Your task to perform on an android device: Clear all items from cart on ebay. Image 0: 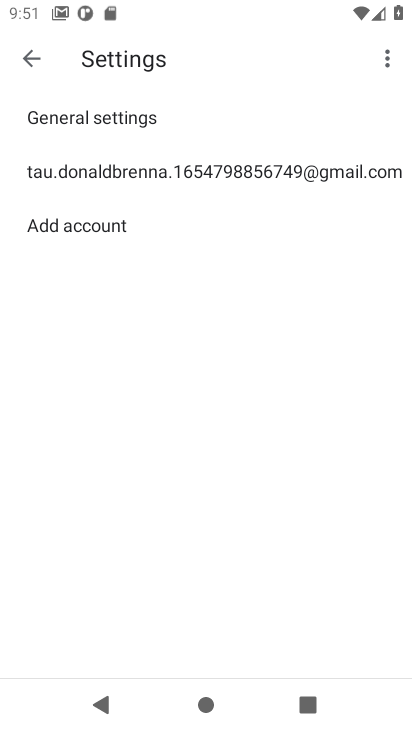
Step 0: press home button
Your task to perform on an android device: Clear all items from cart on ebay. Image 1: 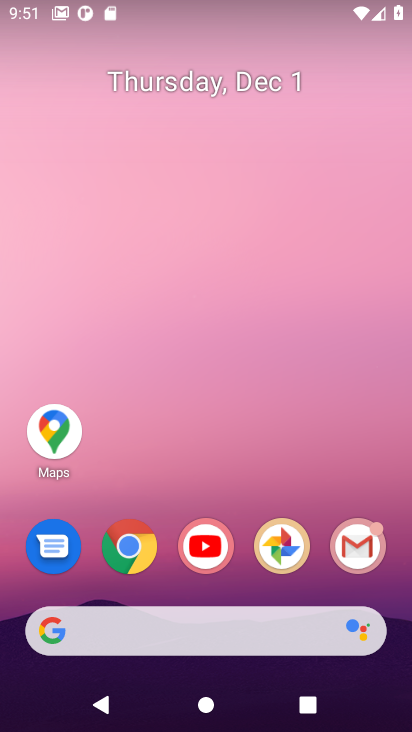
Step 1: click (139, 550)
Your task to perform on an android device: Clear all items from cart on ebay. Image 2: 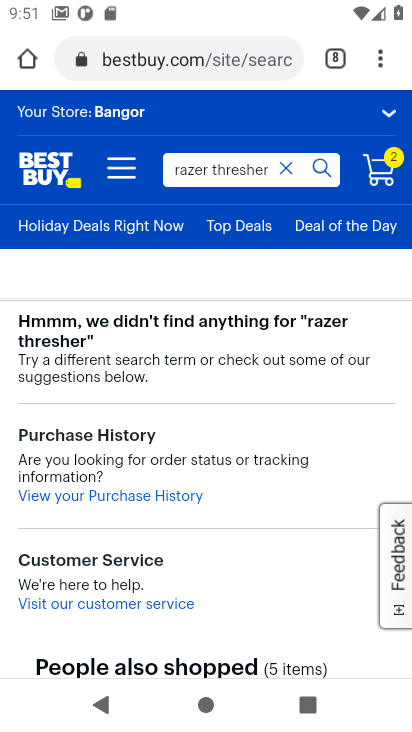
Step 2: click (206, 61)
Your task to perform on an android device: Clear all items from cart on ebay. Image 3: 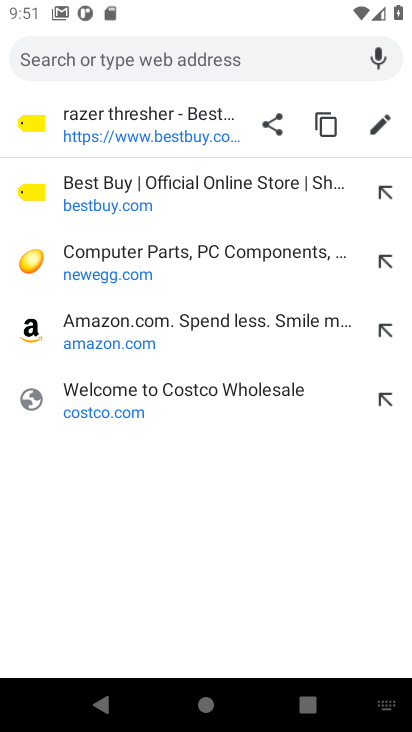
Step 3: type "ebay.com"
Your task to perform on an android device: Clear all items from cart on ebay. Image 4: 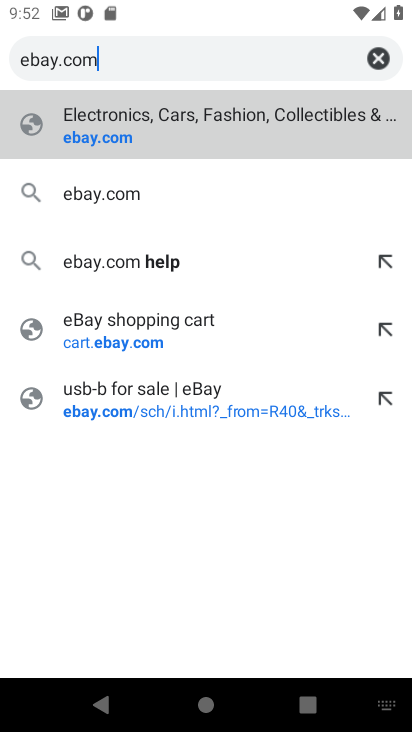
Step 4: click (123, 142)
Your task to perform on an android device: Clear all items from cart on ebay. Image 5: 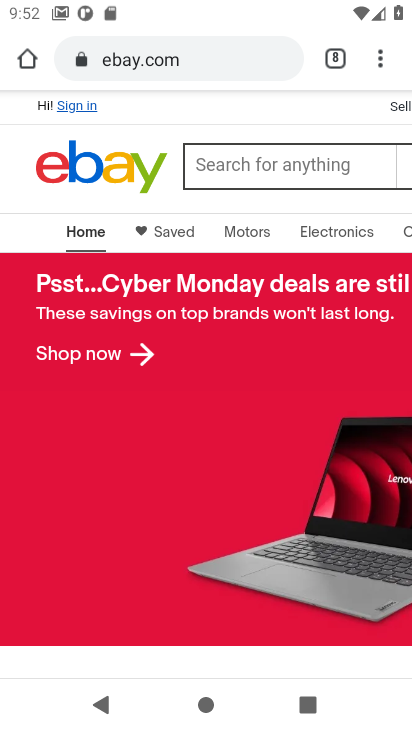
Step 5: drag from (225, 133) to (20, 164)
Your task to perform on an android device: Clear all items from cart on ebay. Image 6: 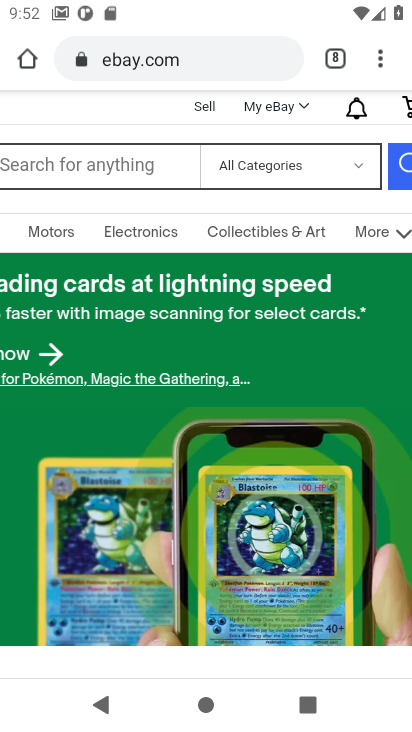
Step 6: drag from (388, 129) to (283, 131)
Your task to perform on an android device: Clear all items from cart on ebay. Image 7: 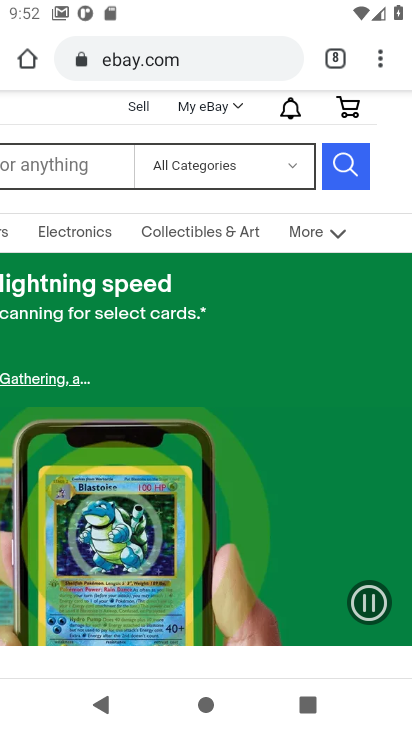
Step 7: click (342, 117)
Your task to perform on an android device: Clear all items from cart on ebay. Image 8: 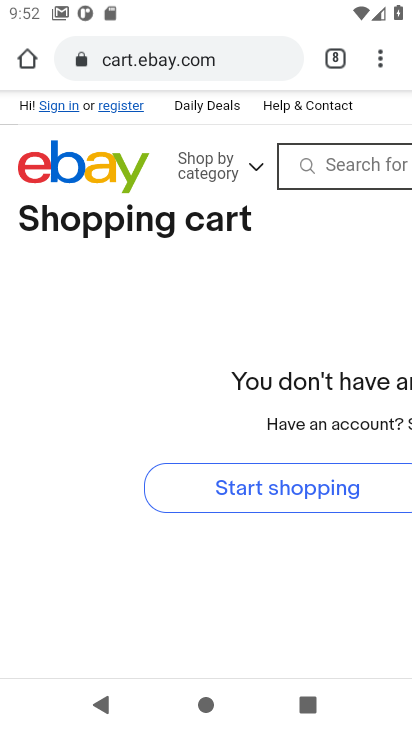
Step 8: task complete